Your task to perform on an android device: Go to settings Image 0: 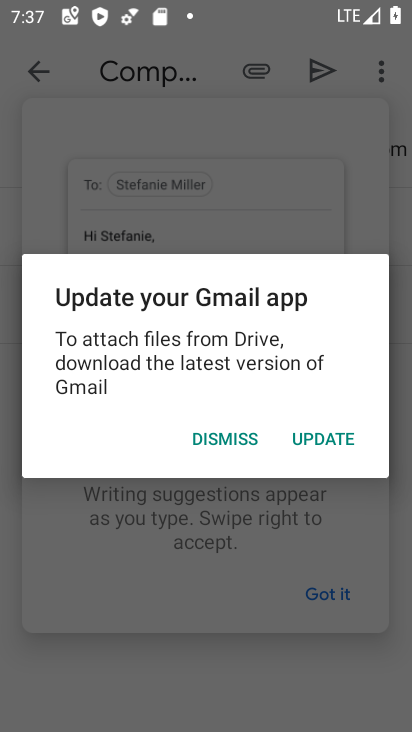
Step 0: press home button
Your task to perform on an android device: Go to settings Image 1: 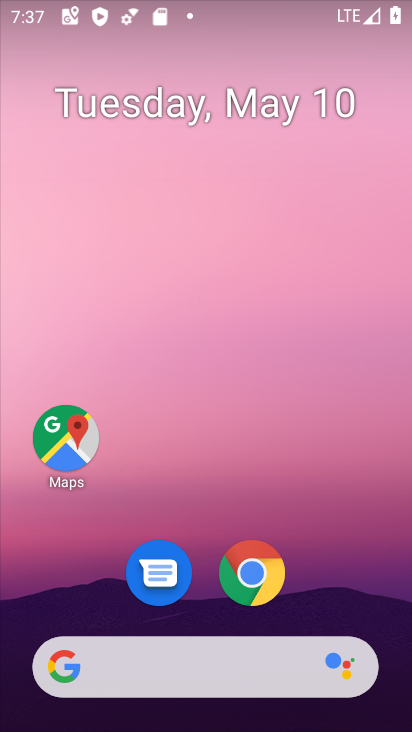
Step 1: drag from (240, 466) to (226, 2)
Your task to perform on an android device: Go to settings Image 2: 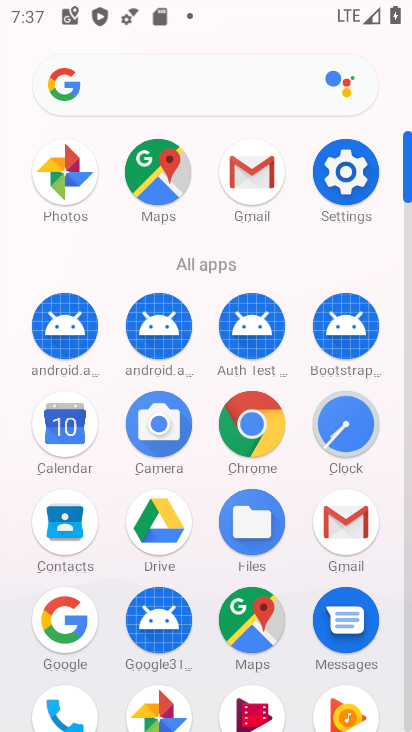
Step 2: click (352, 189)
Your task to perform on an android device: Go to settings Image 3: 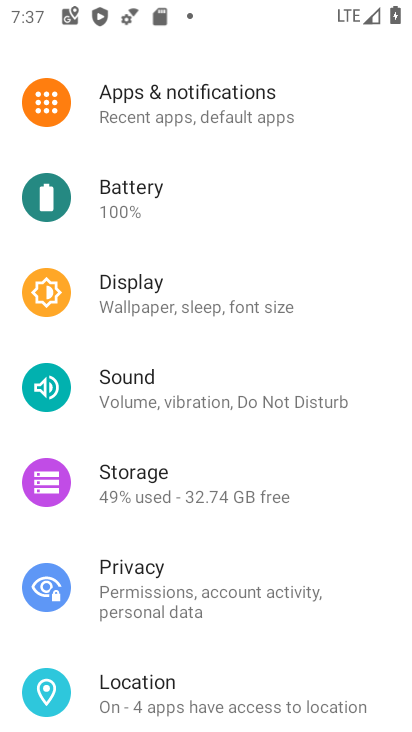
Step 3: task complete